Your task to perform on an android device: turn off translation in the chrome app Image 0: 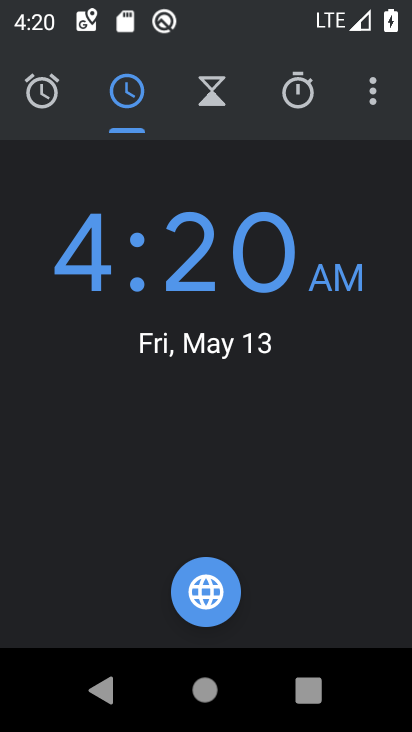
Step 0: press home button
Your task to perform on an android device: turn off translation in the chrome app Image 1: 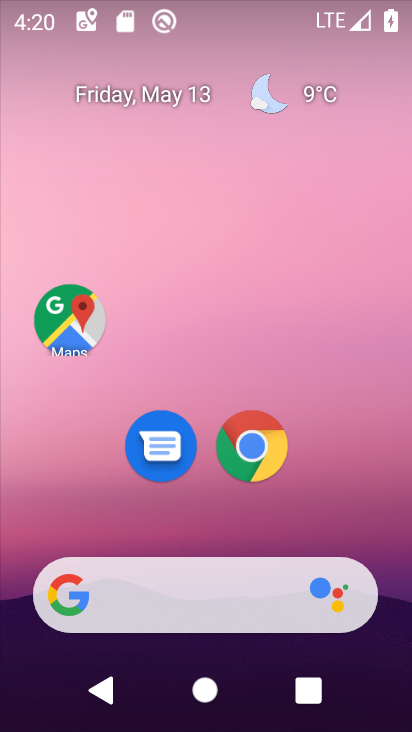
Step 1: click (247, 442)
Your task to perform on an android device: turn off translation in the chrome app Image 2: 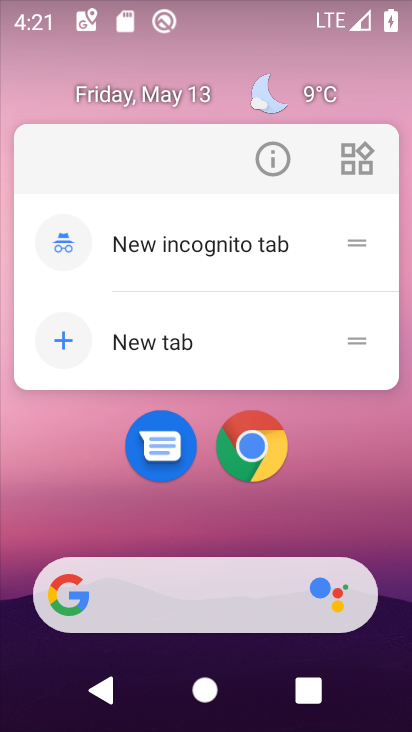
Step 2: click (247, 442)
Your task to perform on an android device: turn off translation in the chrome app Image 3: 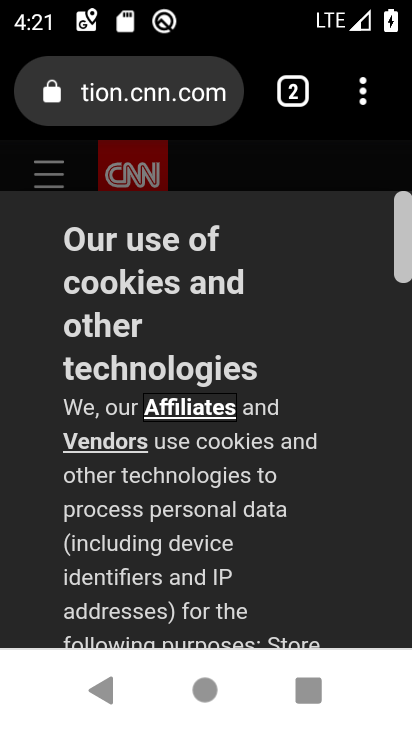
Step 3: click (354, 92)
Your task to perform on an android device: turn off translation in the chrome app Image 4: 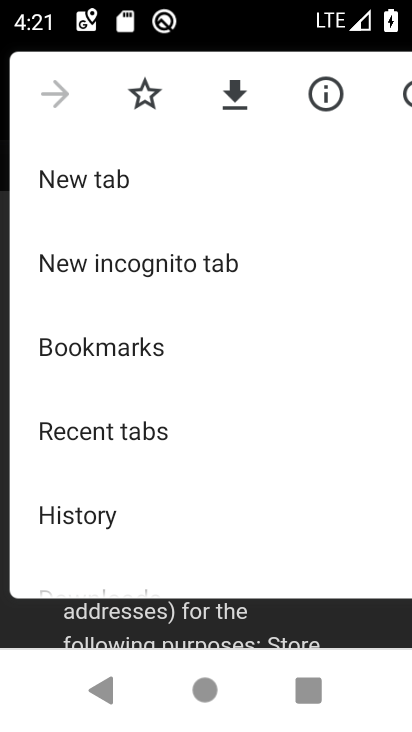
Step 4: drag from (208, 519) to (213, 207)
Your task to perform on an android device: turn off translation in the chrome app Image 5: 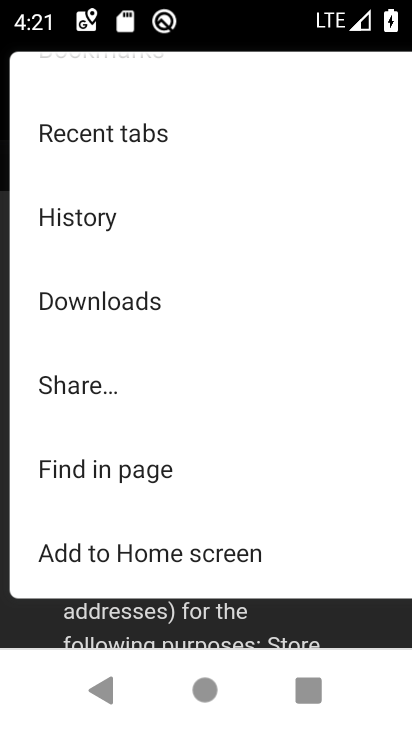
Step 5: drag from (136, 485) to (141, 166)
Your task to perform on an android device: turn off translation in the chrome app Image 6: 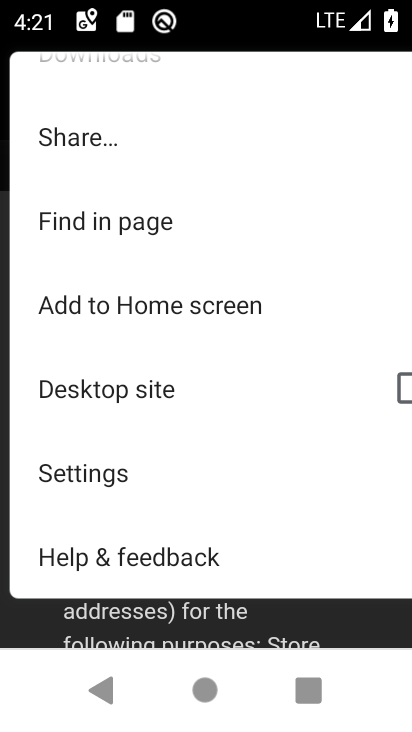
Step 6: click (120, 458)
Your task to perform on an android device: turn off translation in the chrome app Image 7: 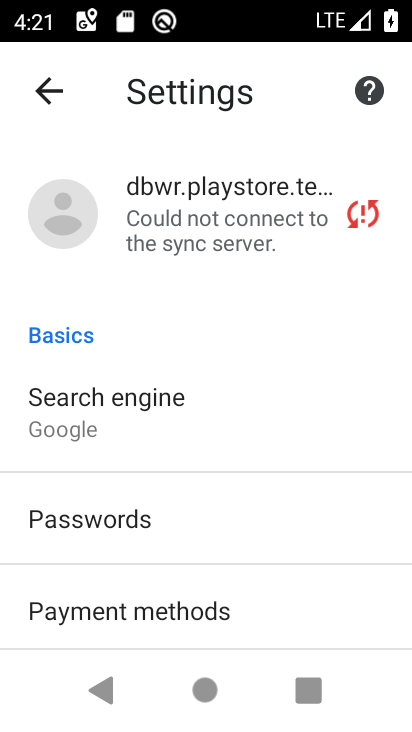
Step 7: drag from (132, 560) to (192, 259)
Your task to perform on an android device: turn off translation in the chrome app Image 8: 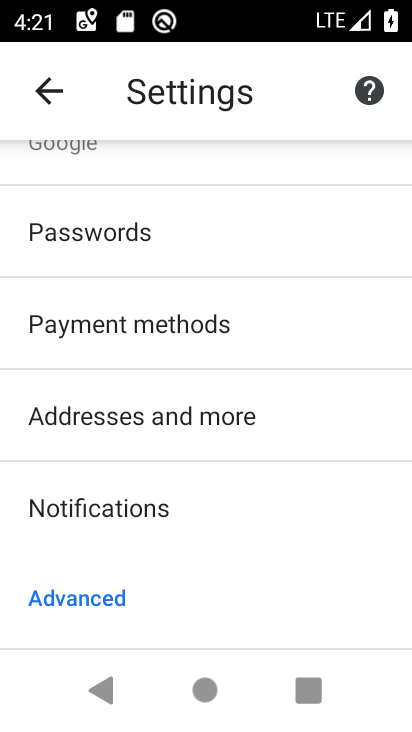
Step 8: drag from (163, 554) to (191, 312)
Your task to perform on an android device: turn off translation in the chrome app Image 9: 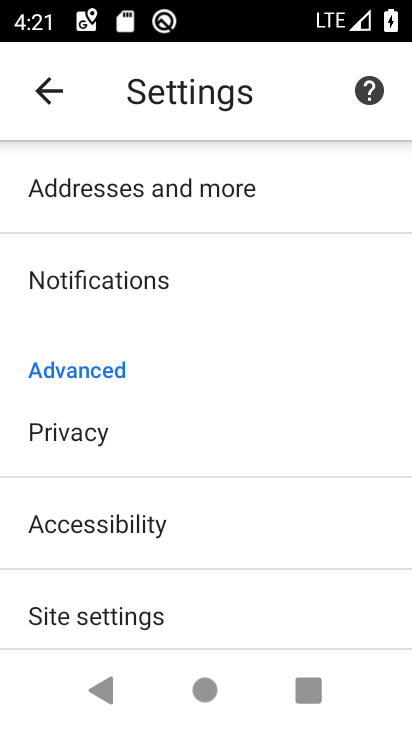
Step 9: drag from (189, 531) to (205, 324)
Your task to perform on an android device: turn off translation in the chrome app Image 10: 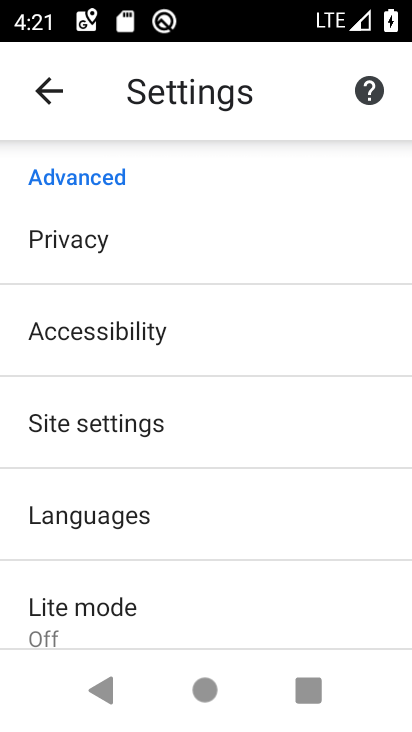
Step 10: drag from (212, 545) to (221, 291)
Your task to perform on an android device: turn off translation in the chrome app Image 11: 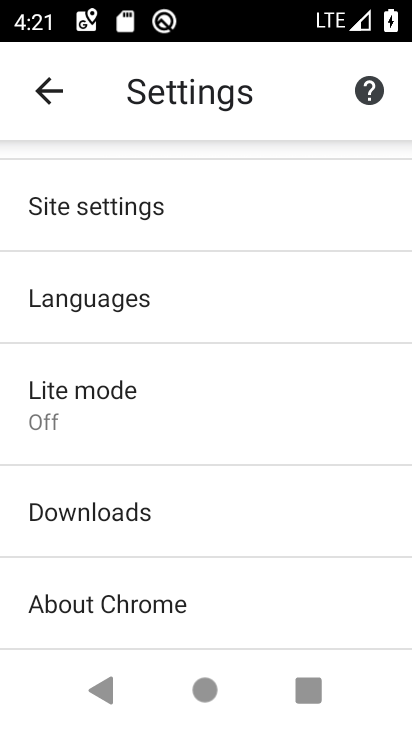
Step 11: click (98, 288)
Your task to perform on an android device: turn off translation in the chrome app Image 12: 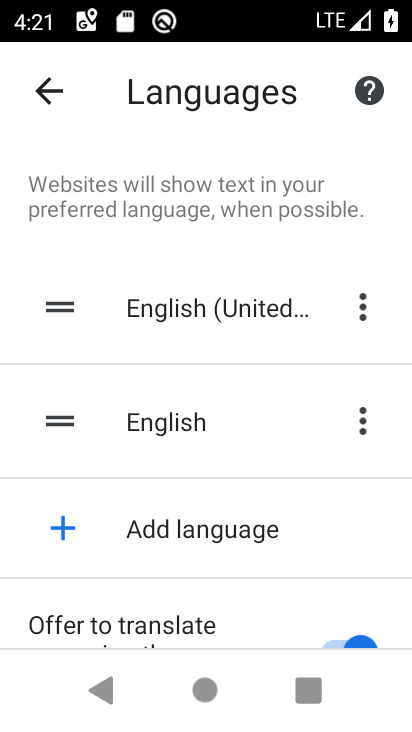
Step 12: drag from (201, 584) to (152, 347)
Your task to perform on an android device: turn off translation in the chrome app Image 13: 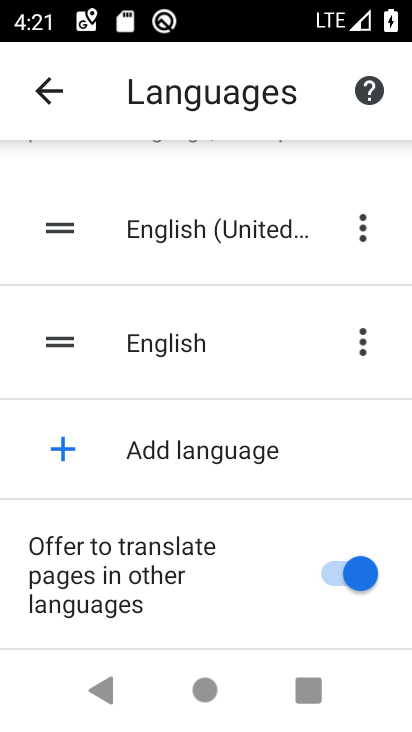
Step 13: click (346, 569)
Your task to perform on an android device: turn off translation in the chrome app Image 14: 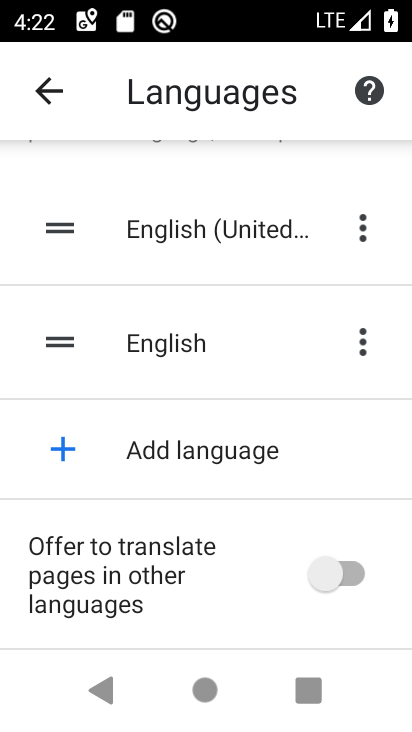
Step 14: task complete